Your task to perform on an android device: toggle priority inbox in the gmail app Image 0: 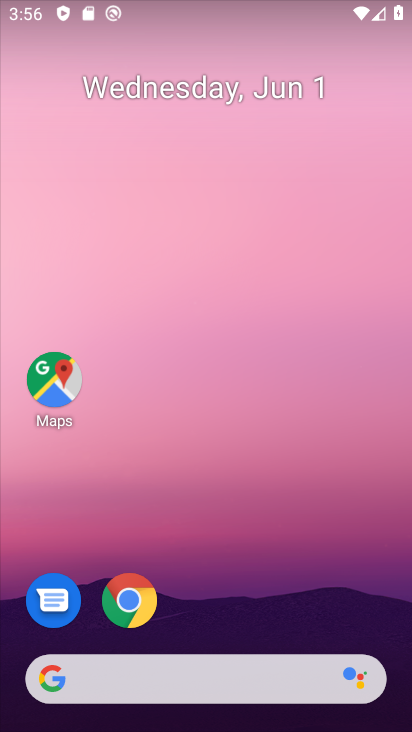
Step 0: drag from (245, 690) to (200, 216)
Your task to perform on an android device: toggle priority inbox in the gmail app Image 1: 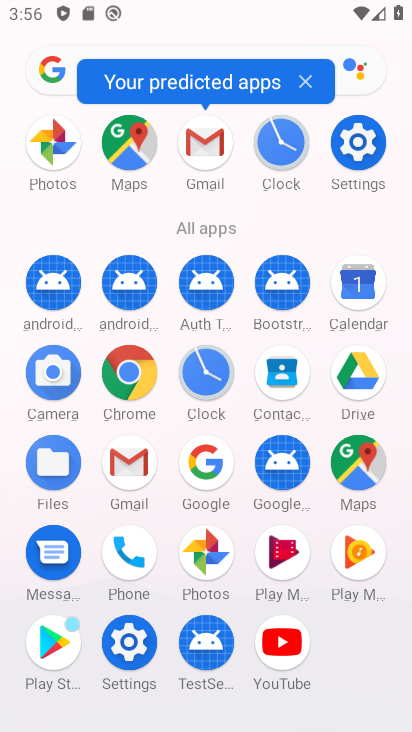
Step 1: drag from (192, 182) to (204, 148)
Your task to perform on an android device: toggle priority inbox in the gmail app Image 2: 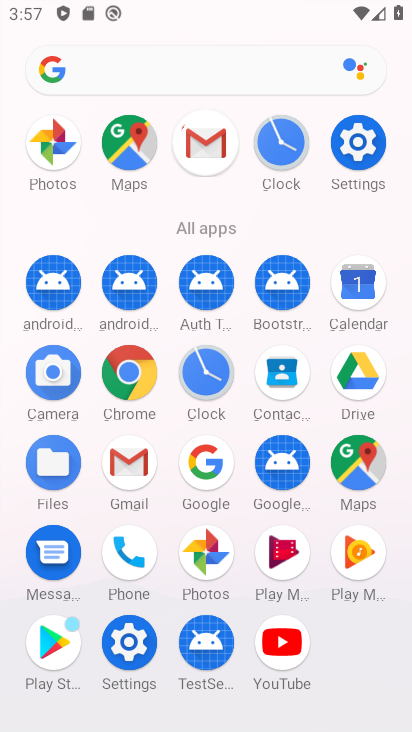
Step 2: click (202, 139)
Your task to perform on an android device: toggle priority inbox in the gmail app Image 3: 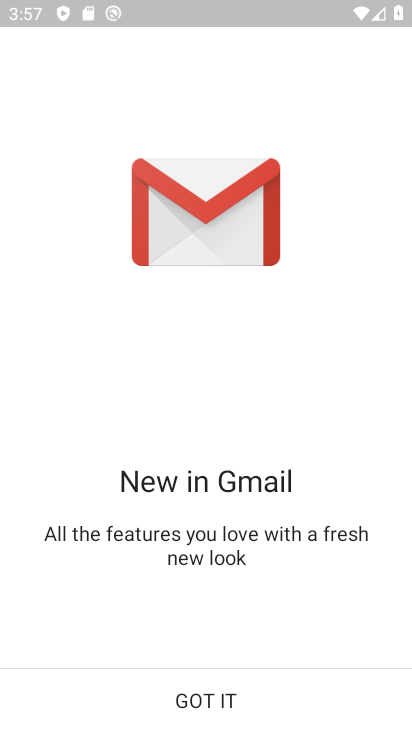
Step 3: click (221, 701)
Your task to perform on an android device: toggle priority inbox in the gmail app Image 4: 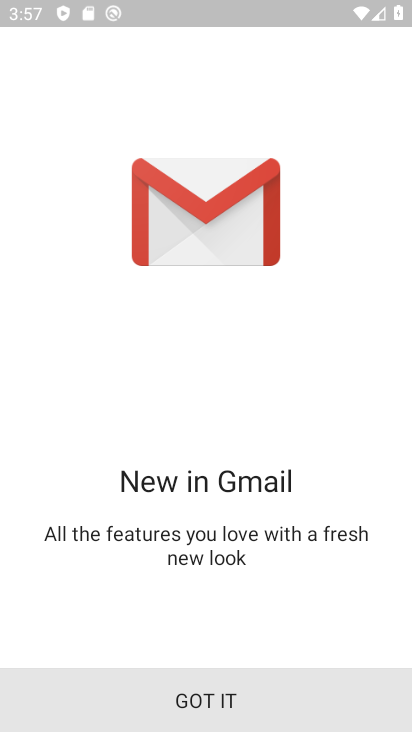
Step 4: click (216, 702)
Your task to perform on an android device: toggle priority inbox in the gmail app Image 5: 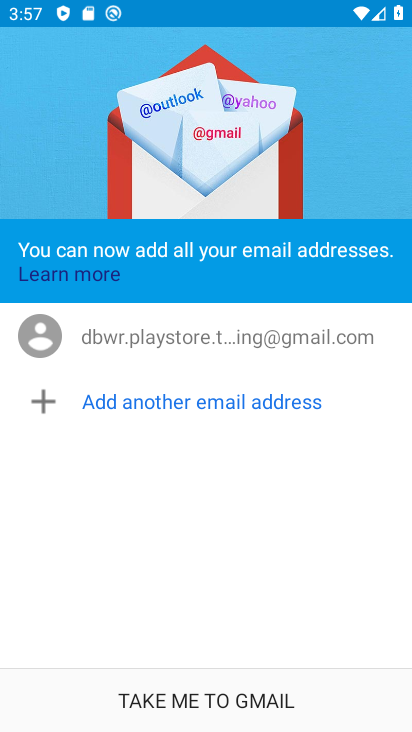
Step 5: click (199, 691)
Your task to perform on an android device: toggle priority inbox in the gmail app Image 6: 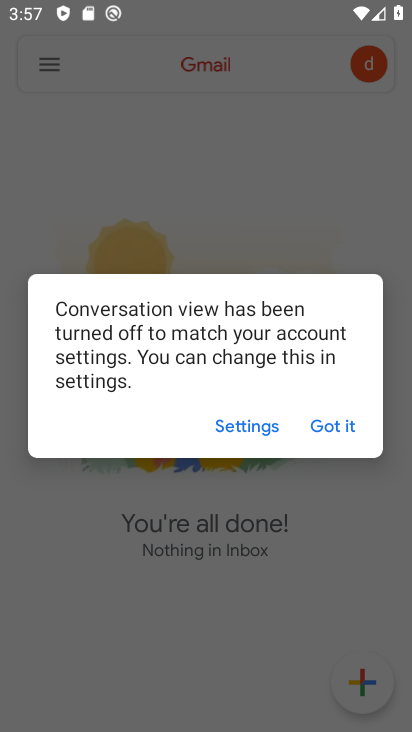
Step 6: click (312, 430)
Your task to perform on an android device: toggle priority inbox in the gmail app Image 7: 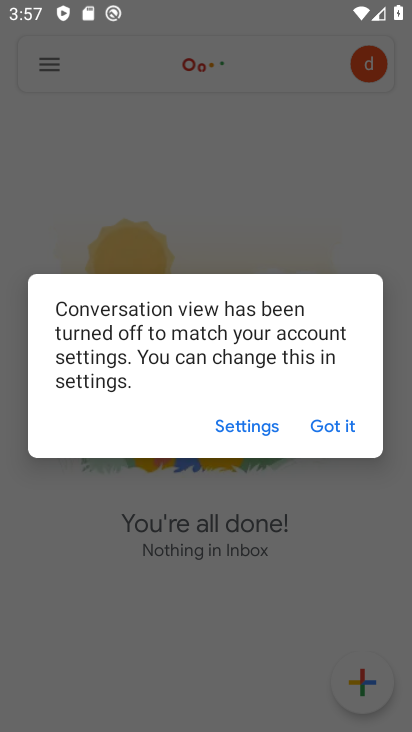
Step 7: click (312, 430)
Your task to perform on an android device: toggle priority inbox in the gmail app Image 8: 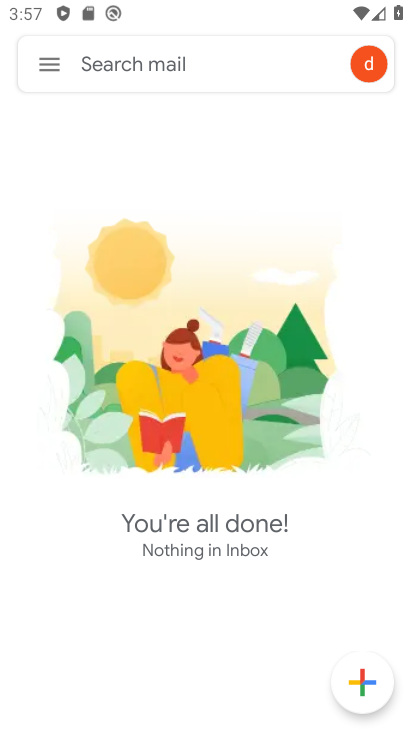
Step 8: click (56, 62)
Your task to perform on an android device: toggle priority inbox in the gmail app Image 9: 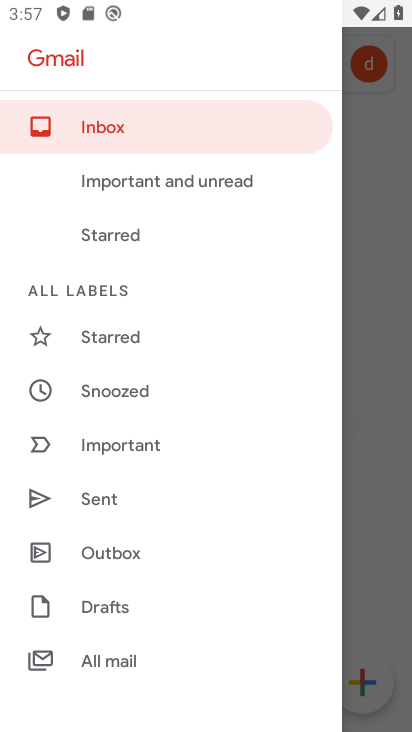
Step 9: drag from (130, 582) to (87, 171)
Your task to perform on an android device: toggle priority inbox in the gmail app Image 10: 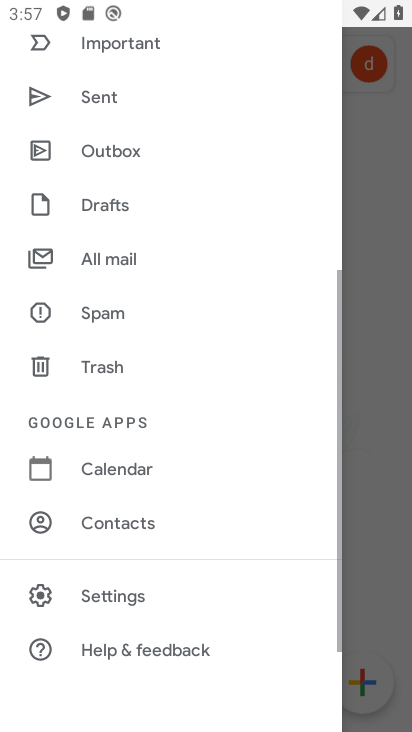
Step 10: drag from (169, 546) to (168, 254)
Your task to perform on an android device: toggle priority inbox in the gmail app Image 11: 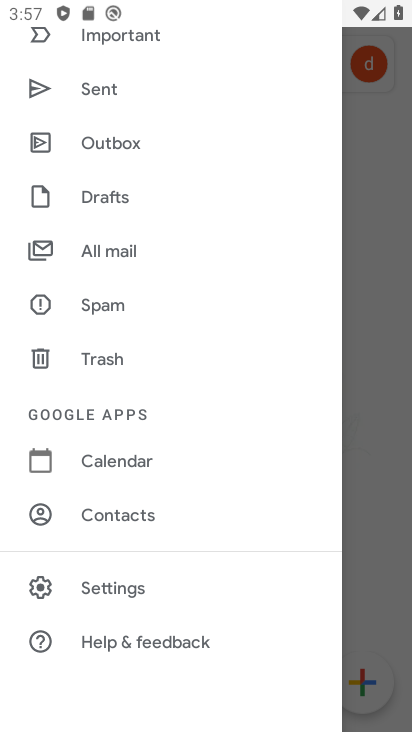
Step 11: click (108, 587)
Your task to perform on an android device: toggle priority inbox in the gmail app Image 12: 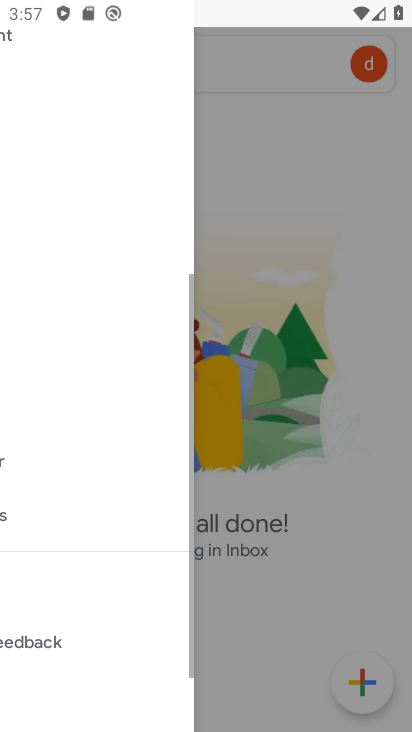
Step 12: click (101, 588)
Your task to perform on an android device: toggle priority inbox in the gmail app Image 13: 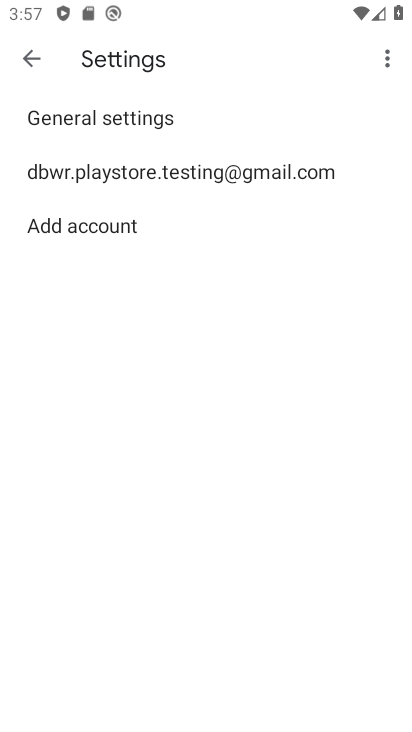
Step 13: click (131, 167)
Your task to perform on an android device: toggle priority inbox in the gmail app Image 14: 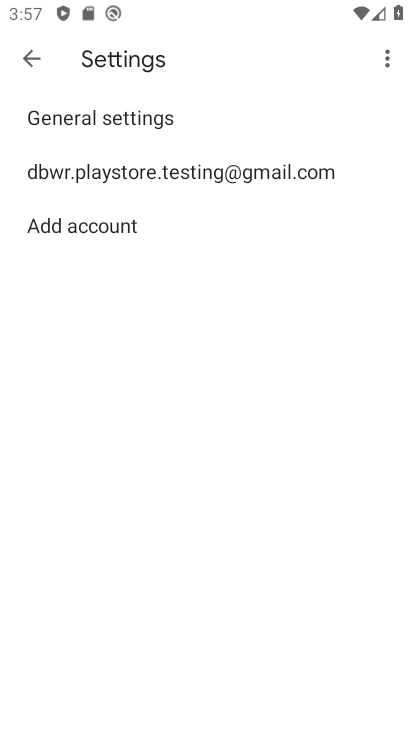
Step 14: click (112, 175)
Your task to perform on an android device: toggle priority inbox in the gmail app Image 15: 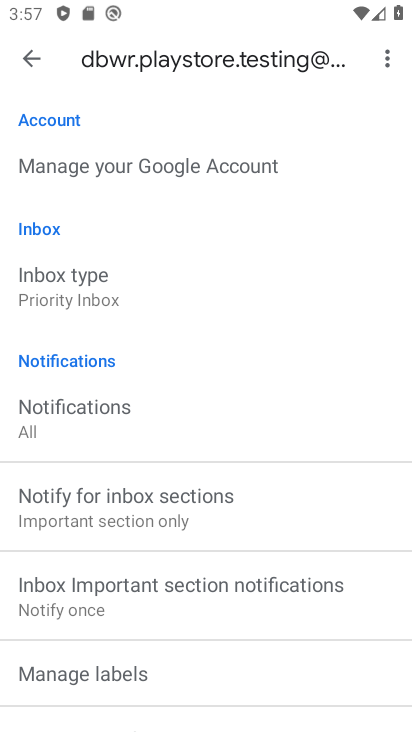
Step 15: click (60, 276)
Your task to perform on an android device: toggle priority inbox in the gmail app Image 16: 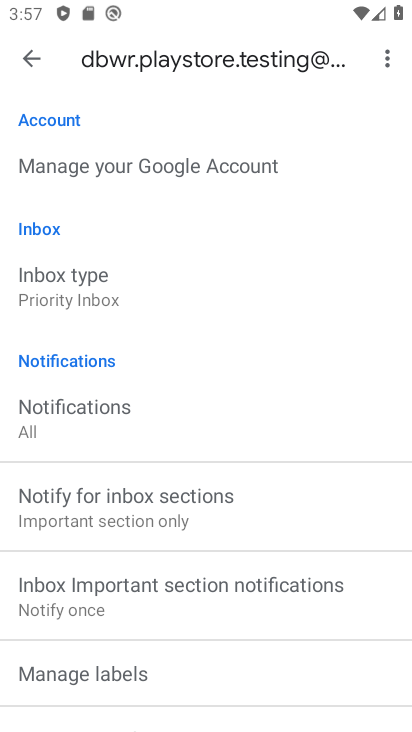
Step 16: click (57, 297)
Your task to perform on an android device: toggle priority inbox in the gmail app Image 17: 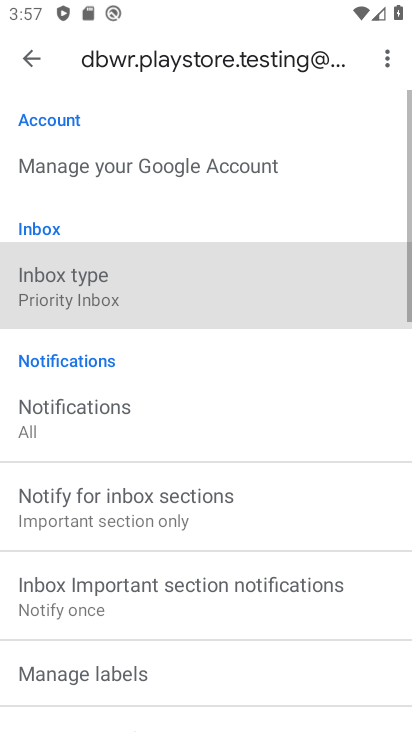
Step 17: click (57, 296)
Your task to perform on an android device: toggle priority inbox in the gmail app Image 18: 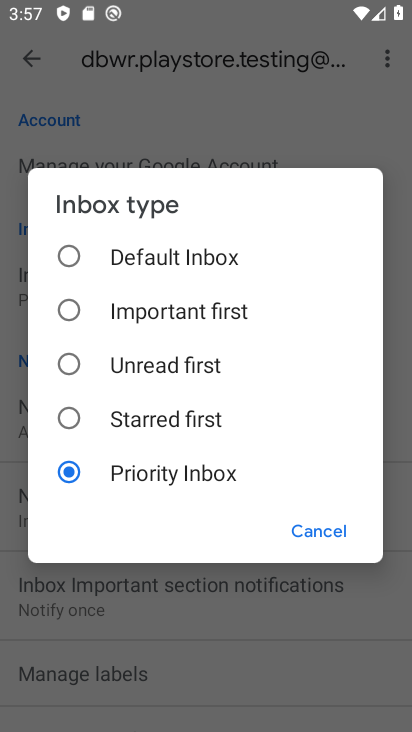
Step 18: click (324, 533)
Your task to perform on an android device: toggle priority inbox in the gmail app Image 19: 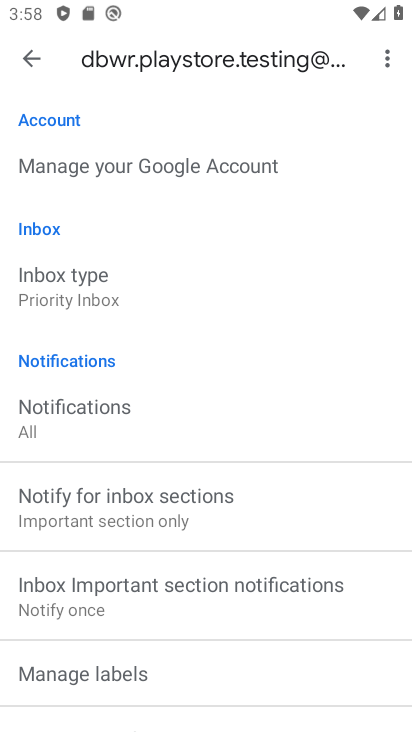
Step 19: click (56, 286)
Your task to perform on an android device: toggle priority inbox in the gmail app Image 20: 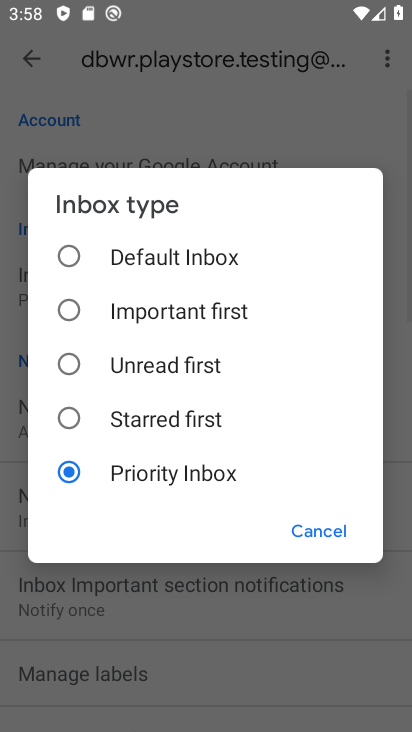
Step 20: click (73, 420)
Your task to perform on an android device: toggle priority inbox in the gmail app Image 21: 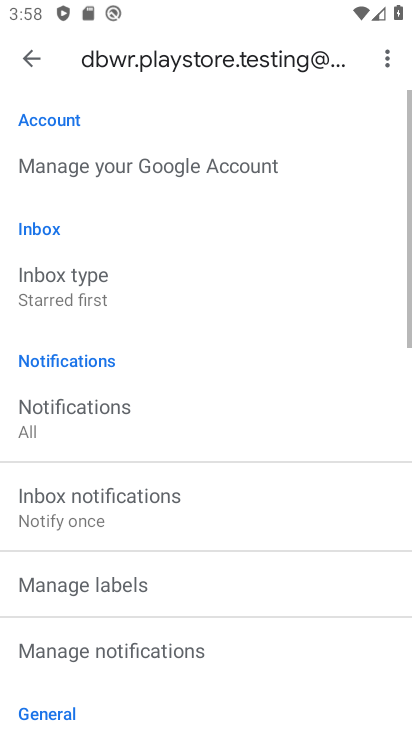
Step 21: task complete